Your task to perform on an android device: Open settings on Google Maps Image 0: 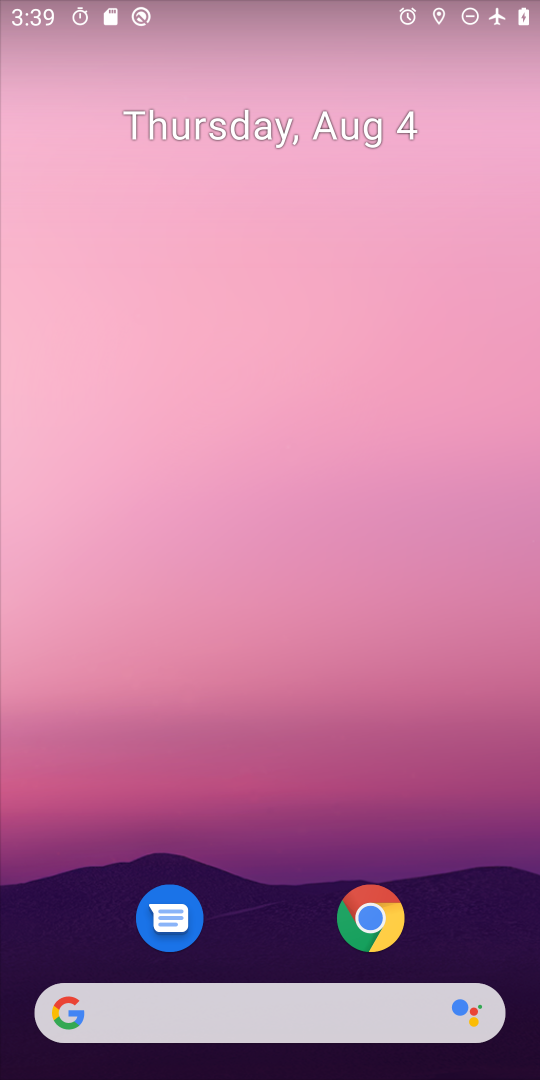
Step 0: drag from (284, 897) to (290, 448)
Your task to perform on an android device: Open settings on Google Maps Image 1: 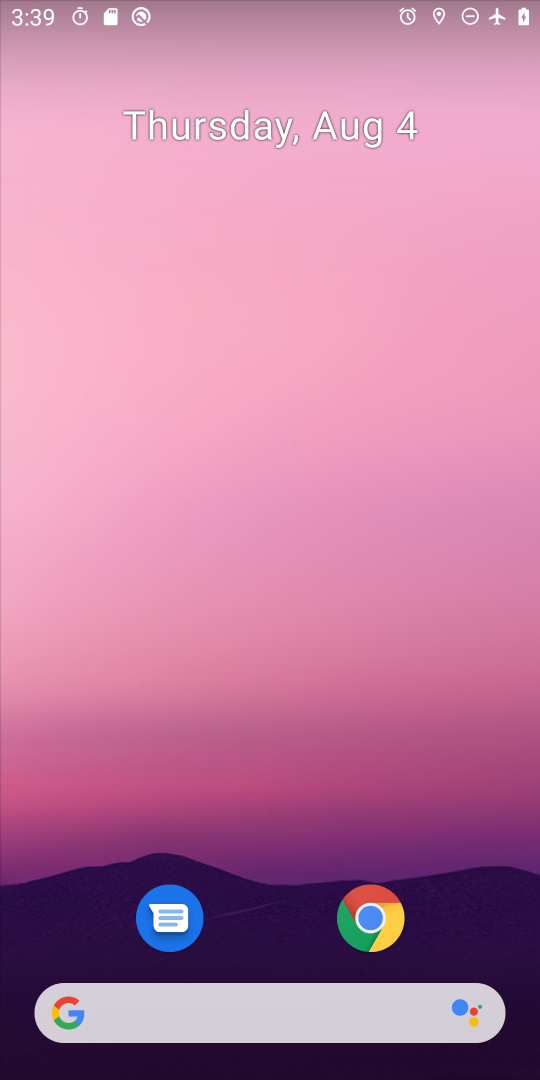
Step 1: drag from (292, 902) to (324, 385)
Your task to perform on an android device: Open settings on Google Maps Image 2: 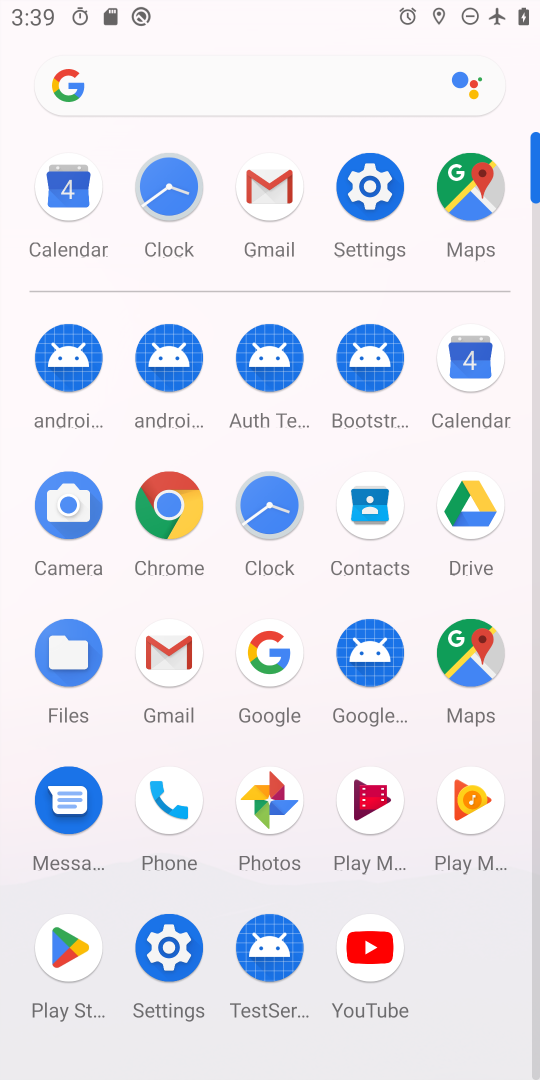
Step 2: click (458, 205)
Your task to perform on an android device: Open settings on Google Maps Image 3: 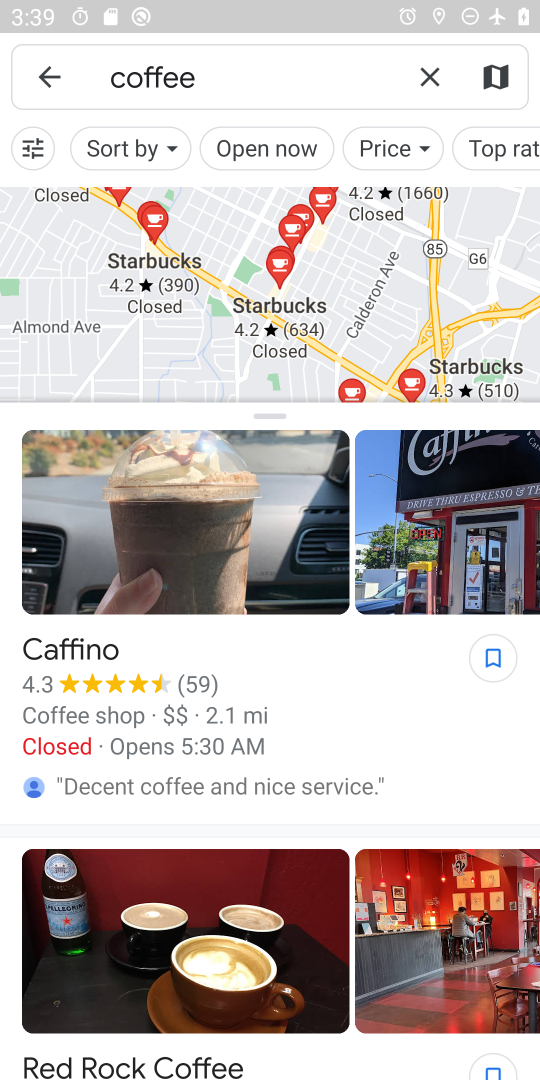
Step 3: click (56, 82)
Your task to perform on an android device: Open settings on Google Maps Image 4: 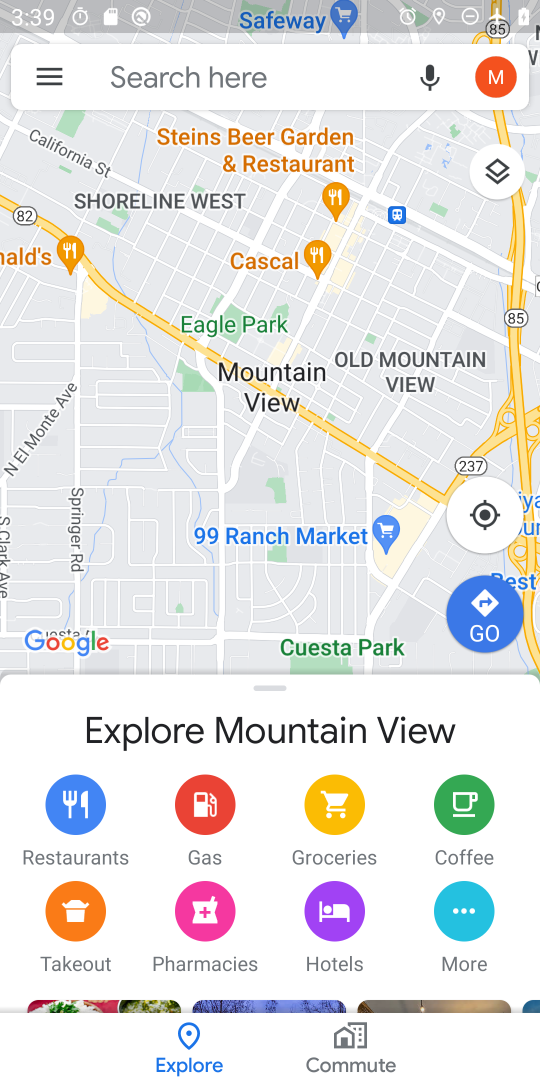
Step 4: click (56, 82)
Your task to perform on an android device: Open settings on Google Maps Image 5: 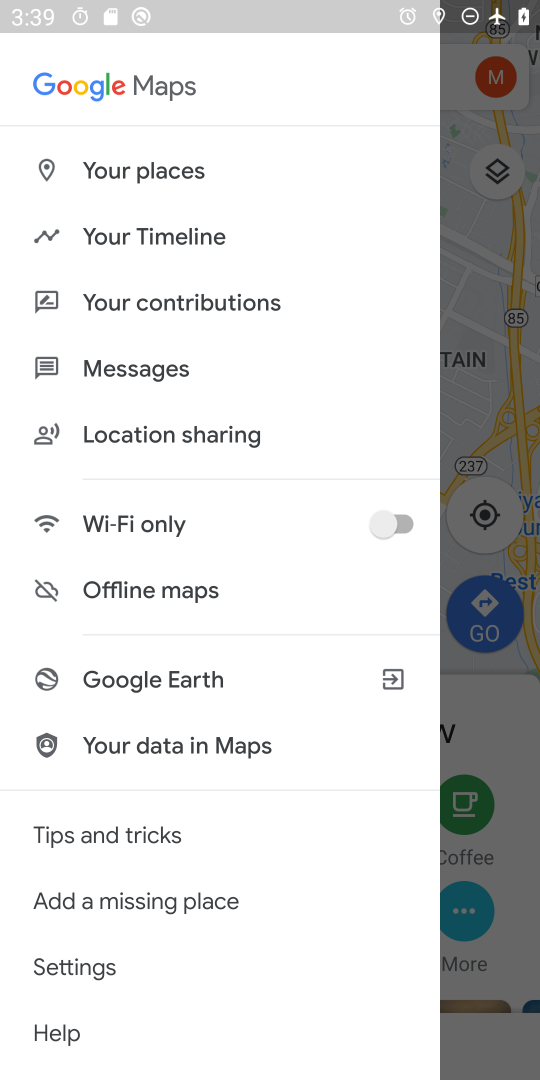
Step 5: click (165, 961)
Your task to perform on an android device: Open settings on Google Maps Image 6: 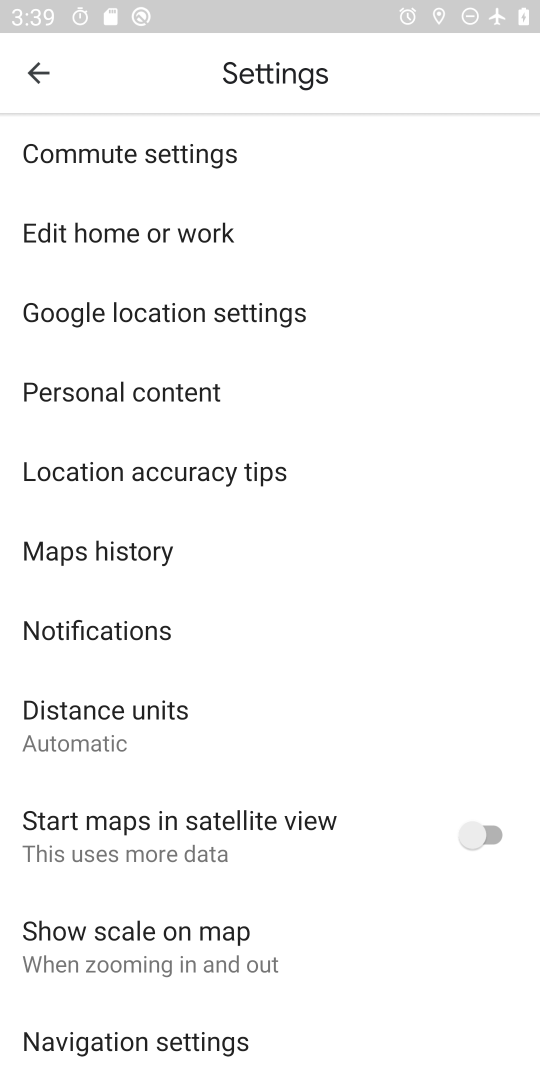
Step 6: task complete